Your task to perform on an android device: check battery use Image 0: 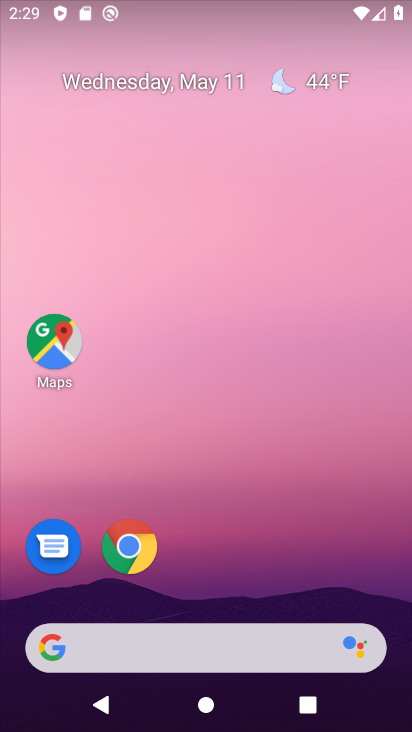
Step 0: drag from (223, 559) to (187, 125)
Your task to perform on an android device: check battery use Image 1: 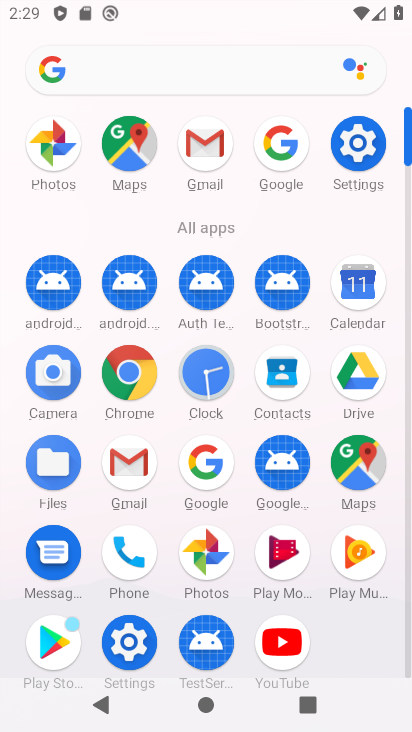
Step 1: click (357, 162)
Your task to perform on an android device: check battery use Image 2: 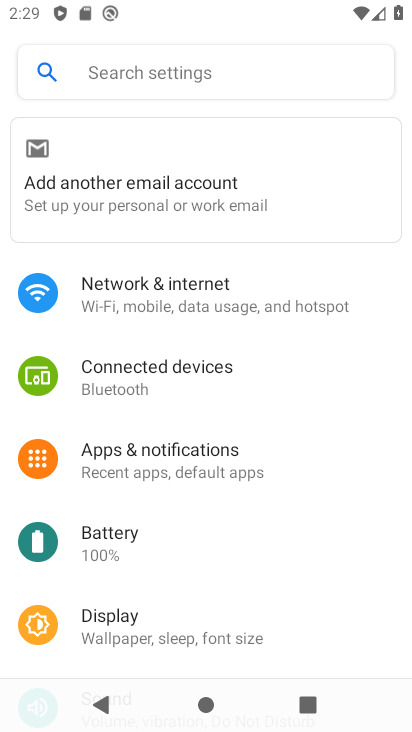
Step 2: click (135, 544)
Your task to perform on an android device: check battery use Image 3: 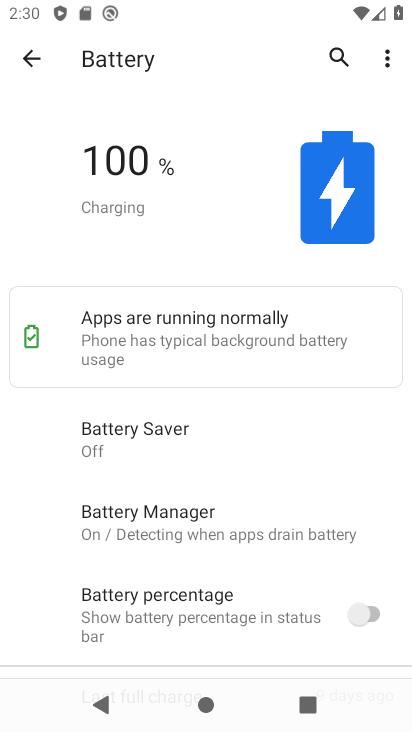
Step 3: task complete